Your task to perform on an android device: What's on my calendar tomorrow? Image 0: 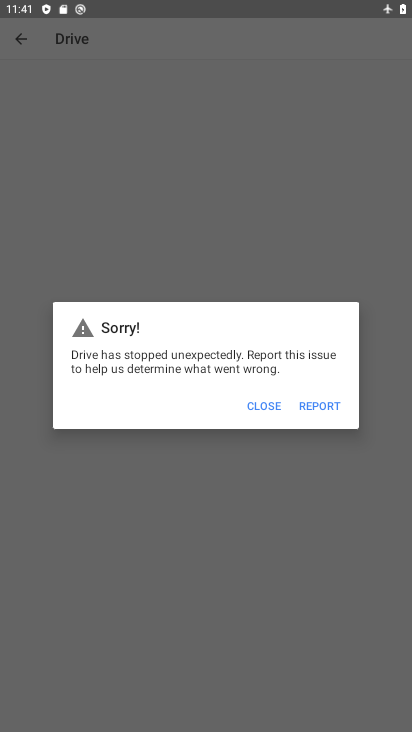
Step 0: press home button
Your task to perform on an android device: What's on my calendar tomorrow? Image 1: 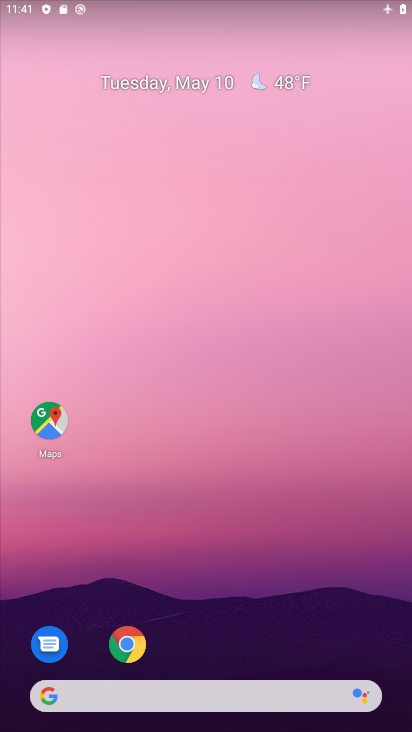
Step 1: drag from (219, 649) to (243, 108)
Your task to perform on an android device: What's on my calendar tomorrow? Image 2: 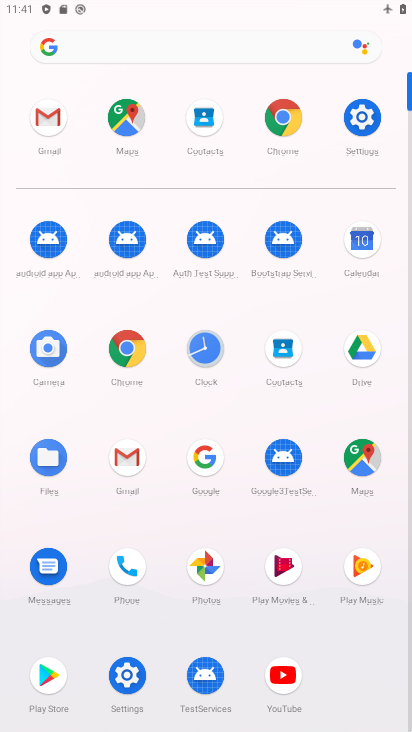
Step 2: click (369, 261)
Your task to perform on an android device: What's on my calendar tomorrow? Image 3: 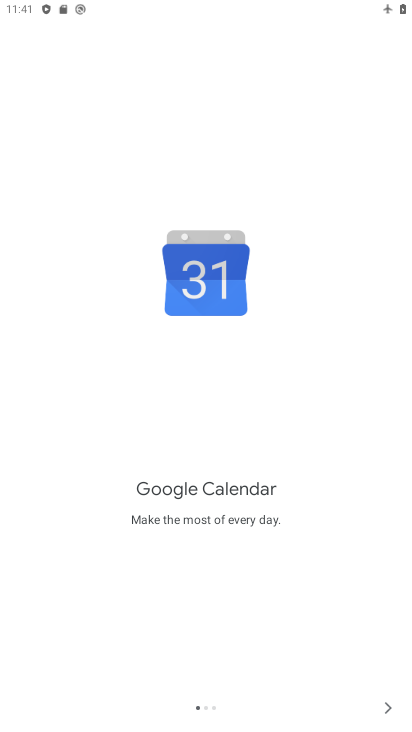
Step 3: click (390, 707)
Your task to perform on an android device: What's on my calendar tomorrow? Image 4: 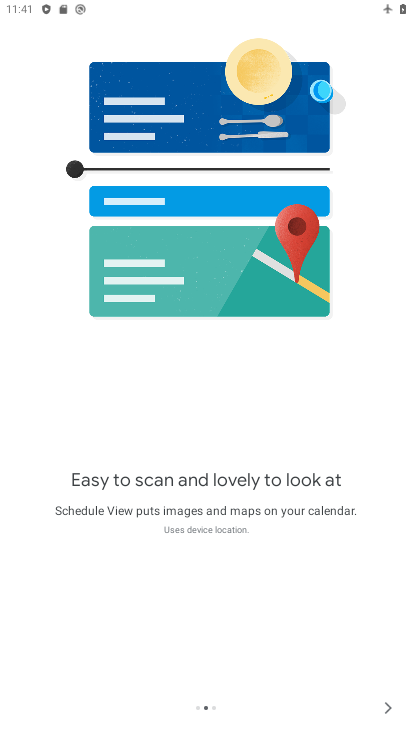
Step 4: click (386, 702)
Your task to perform on an android device: What's on my calendar tomorrow? Image 5: 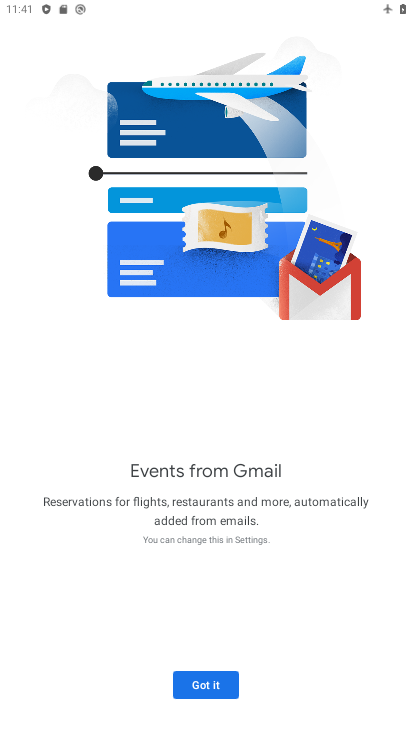
Step 5: click (210, 692)
Your task to perform on an android device: What's on my calendar tomorrow? Image 6: 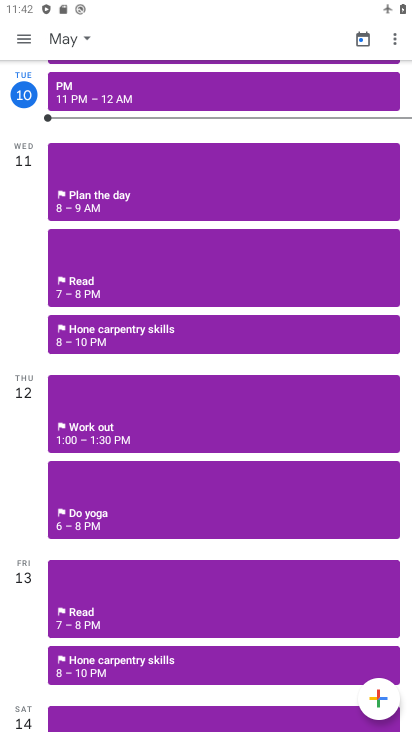
Step 6: click (18, 42)
Your task to perform on an android device: What's on my calendar tomorrow? Image 7: 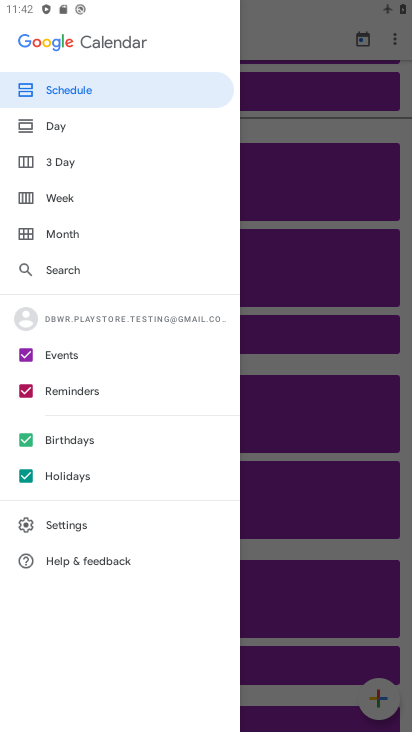
Step 7: click (77, 165)
Your task to perform on an android device: What's on my calendar tomorrow? Image 8: 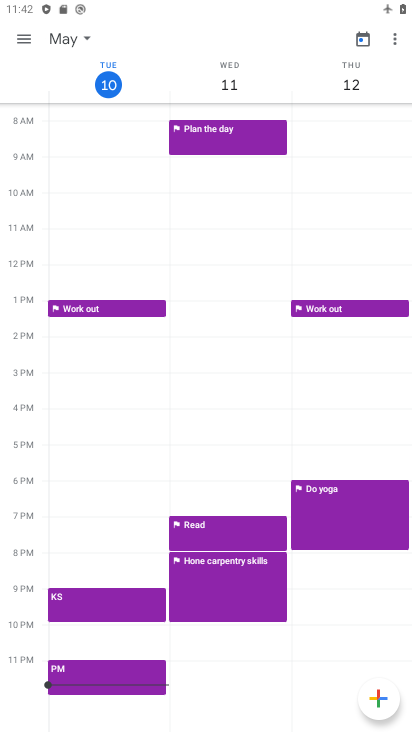
Step 8: task complete